Your task to perform on an android device: turn on improve location accuracy Image 0: 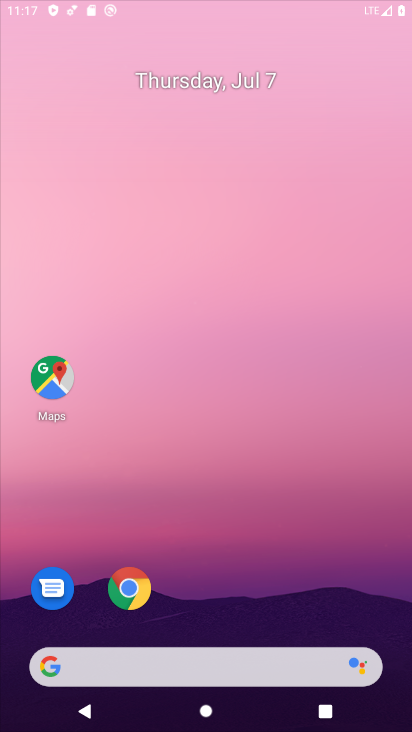
Step 0: drag from (208, 84) to (294, 474)
Your task to perform on an android device: turn on improve location accuracy Image 1: 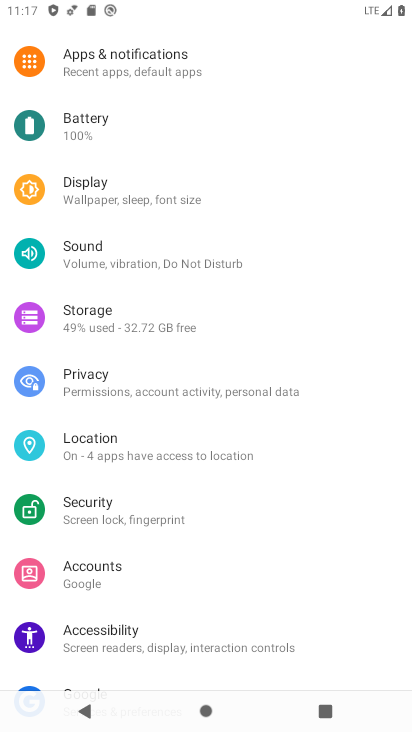
Step 1: click (87, 454)
Your task to perform on an android device: turn on improve location accuracy Image 2: 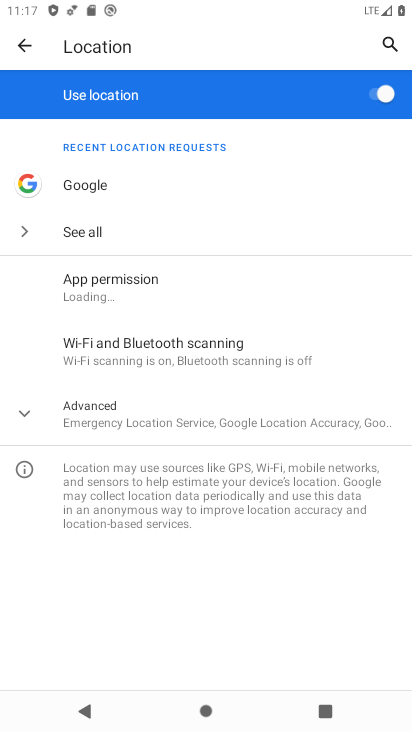
Step 2: click (117, 395)
Your task to perform on an android device: turn on improve location accuracy Image 3: 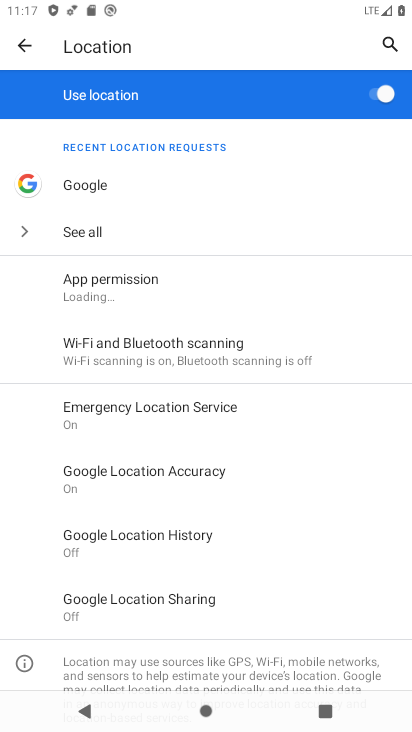
Step 3: click (165, 469)
Your task to perform on an android device: turn on improve location accuracy Image 4: 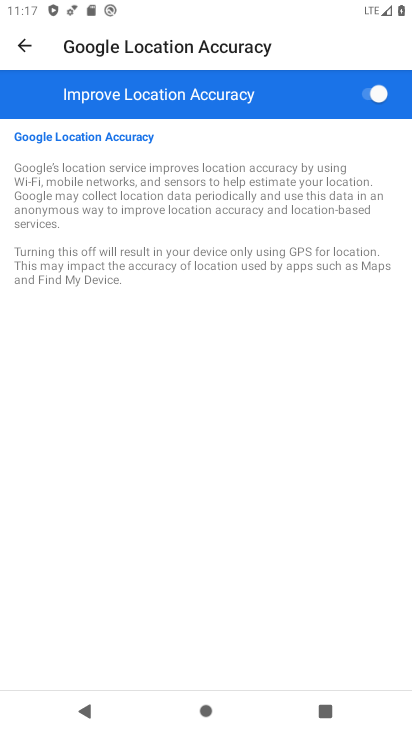
Step 4: task complete